Your task to perform on an android device: turn off airplane mode Image 0: 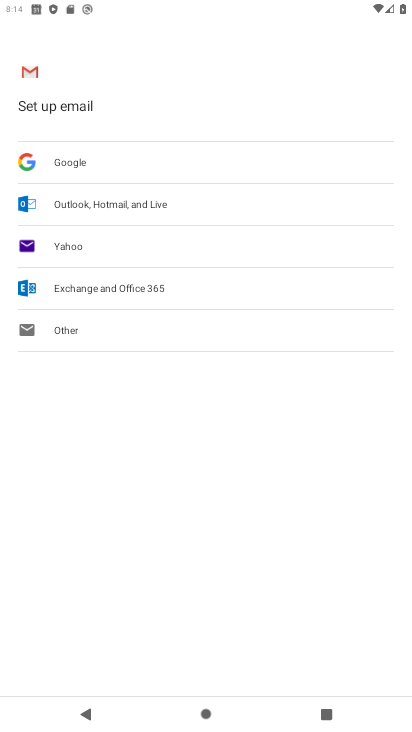
Step 0: press home button
Your task to perform on an android device: turn off airplane mode Image 1: 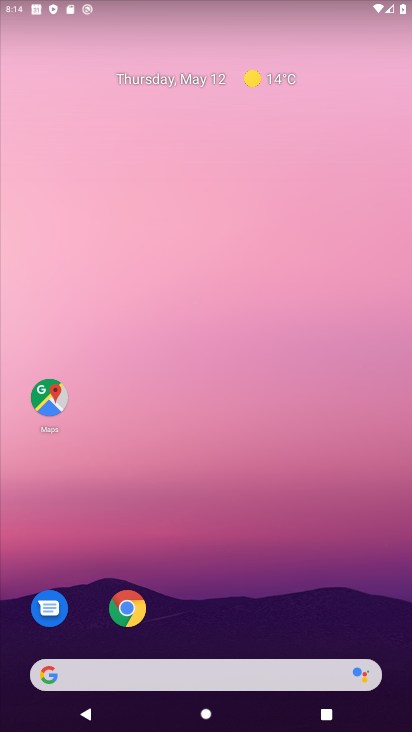
Step 1: drag from (158, 635) to (180, 236)
Your task to perform on an android device: turn off airplane mode Image 2: 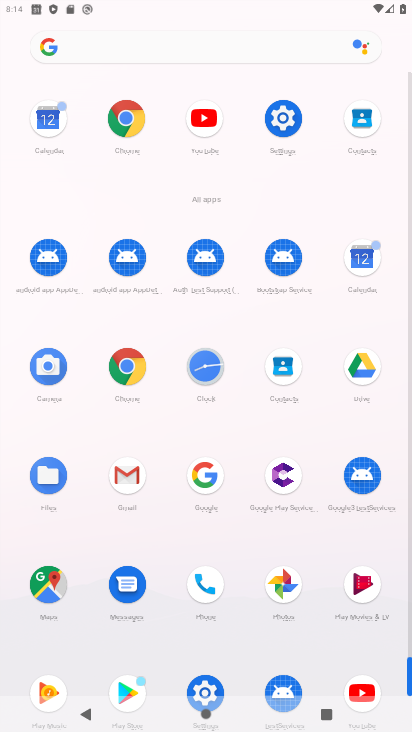
Step 2: click (273, 123)
Your task to perform on an android device: turn off airplane mode Image 3: 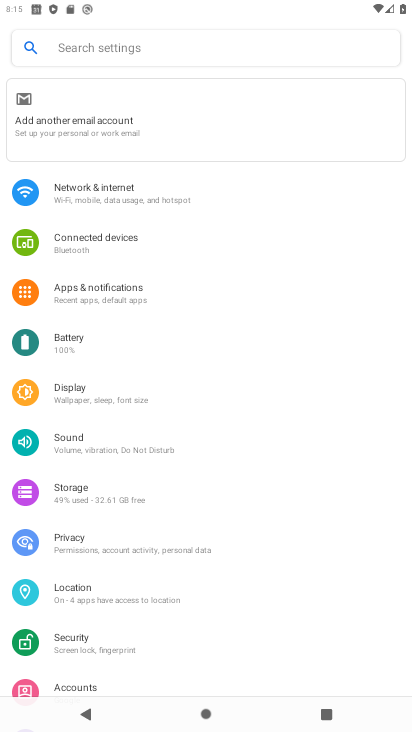
Step 3: click (97, 190)
Your task to perform on an android device: turn off airplane mode Image 4: 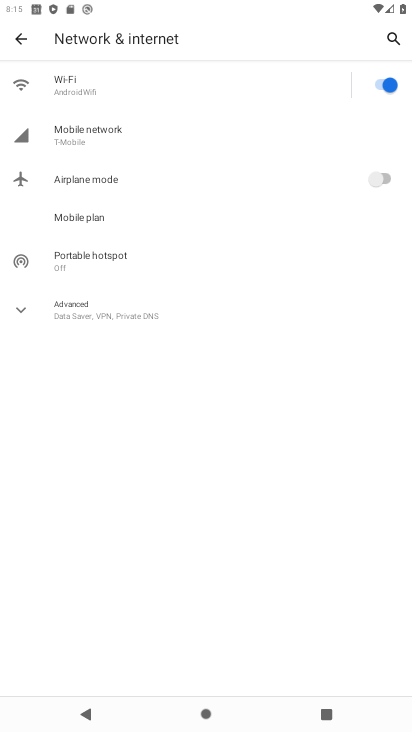
Step 4: task complete